Your task to perform on an android device: turn on sleep mode Image 0: 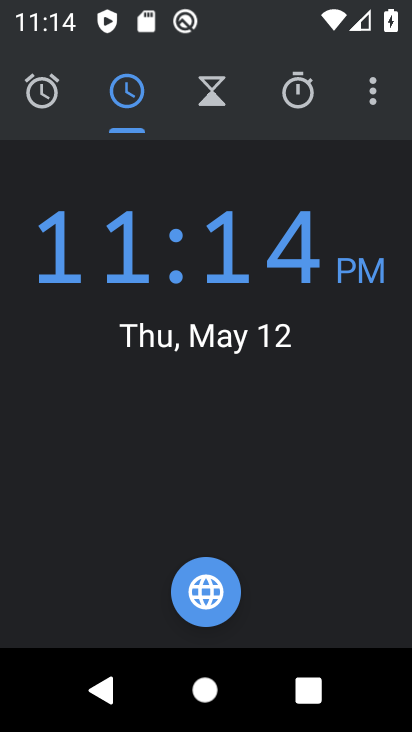
Step 0: press home button
Your task to perform on an android device: turn on sleep mode Image 1: 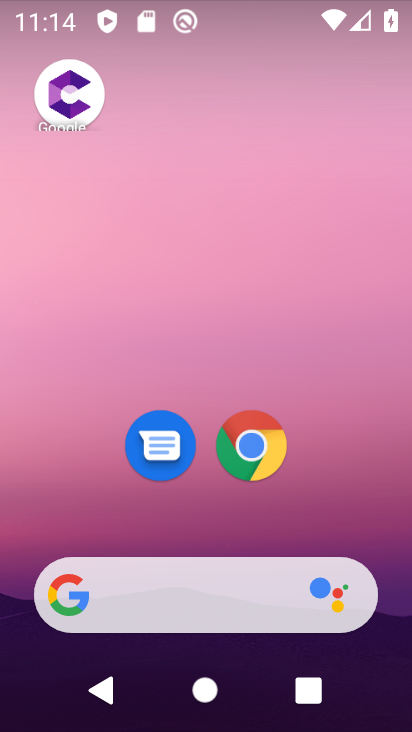
Step 1: drag from (214, 591) to (293, 86)
Your task to perform on an android device: turn on sleep mode Image 2: 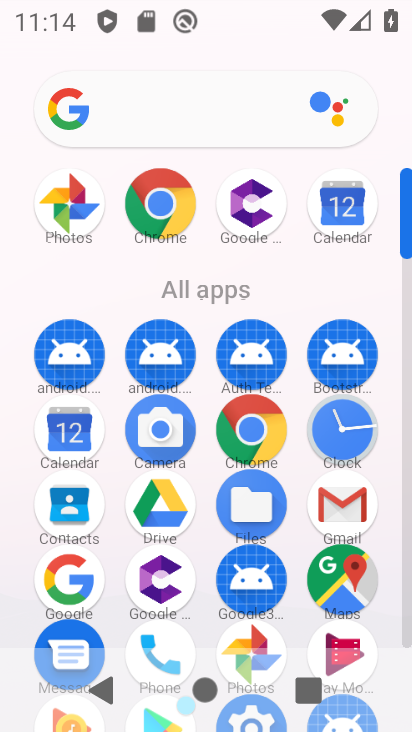
Step 2: drag from (232, 601) to (227, 152)
Your task to perform on an android device: turn on sleep mode Image 3: 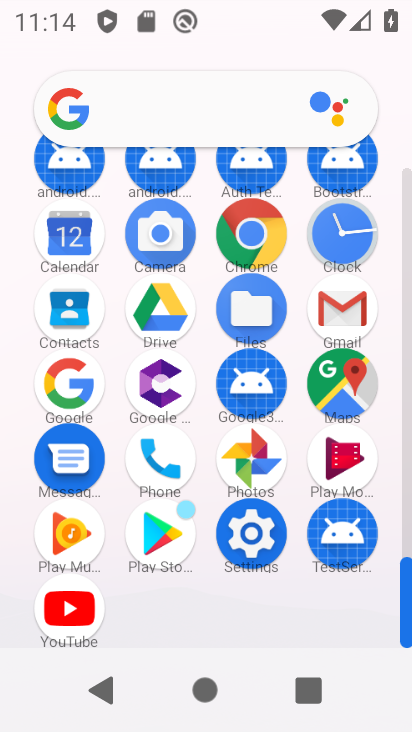
Step 3: click (247, 540)
Your task to perform on an android device: turn on sleep mode Image 4: 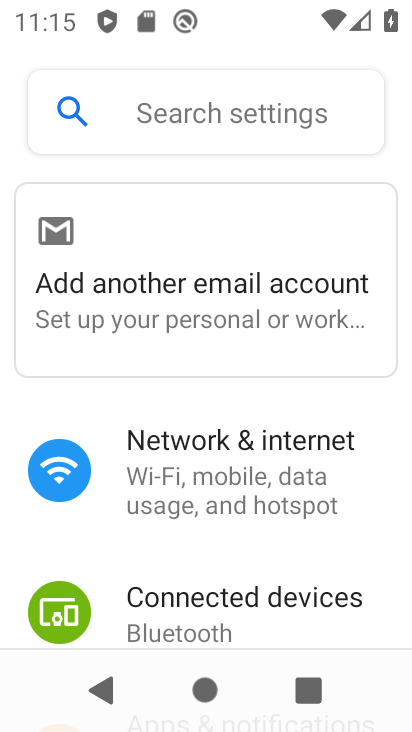
Step 4: drag from (176, 566) to (161, 16)
Your task to perform on an android device: turn on sleep mode Image 5: 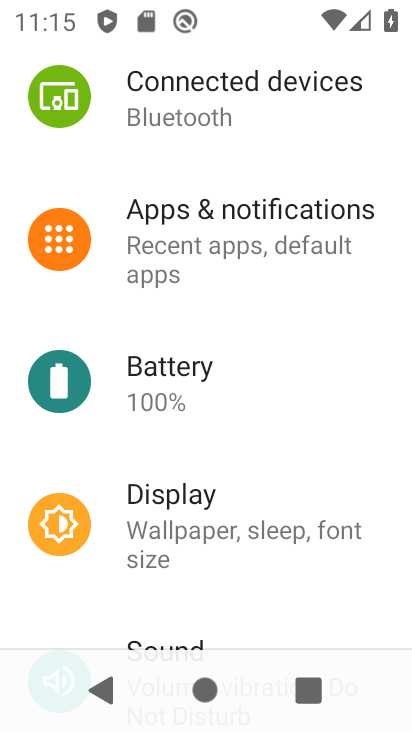
Step 5: click (137, 535)
Your task to perform on an android device: turn on sleep mode Image 6: 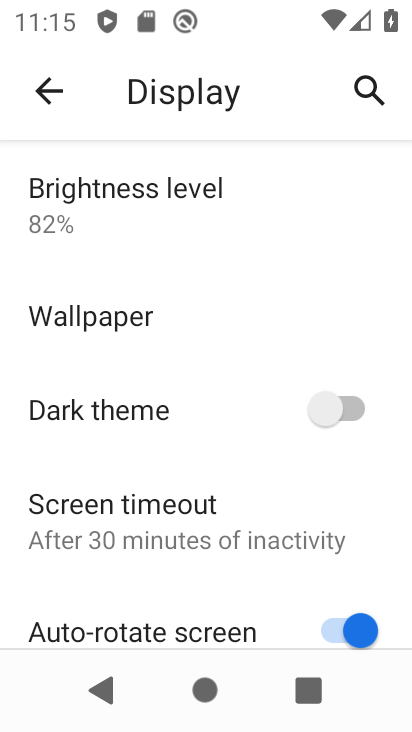
Step 6: drag from (226, 543) to (263, 10)
Your task to perform on an android device: turn on sleep mode Image 7: 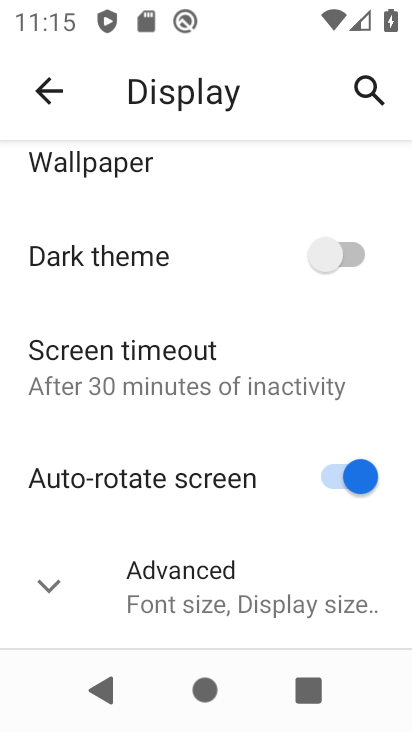
Step 7: click (164, 599)
Your task to perform on an android device: turn on sleep mode Image 8: 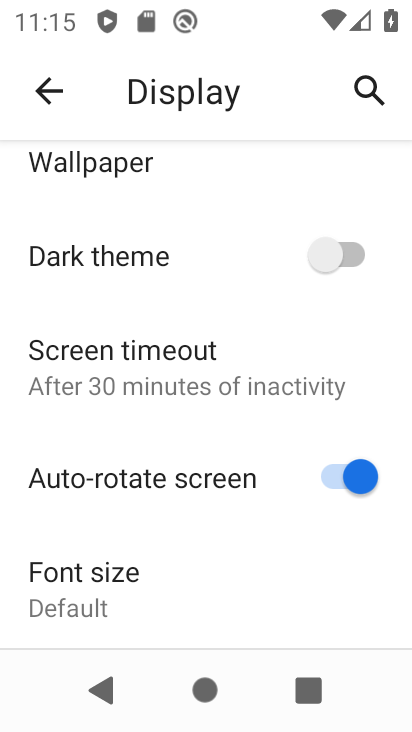
Step 8: task complete